Your task to perform on an android device: See recent photos Image 0: 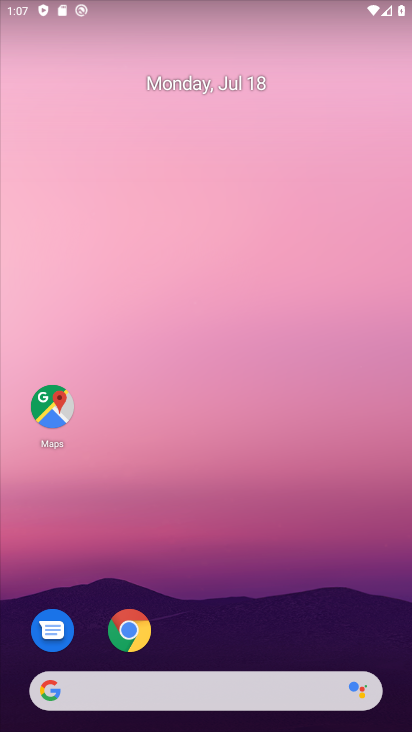
Step 0: drag from (233, 648) to (307, 109)
Your task to perform on an android device: See recent photos Image 1: 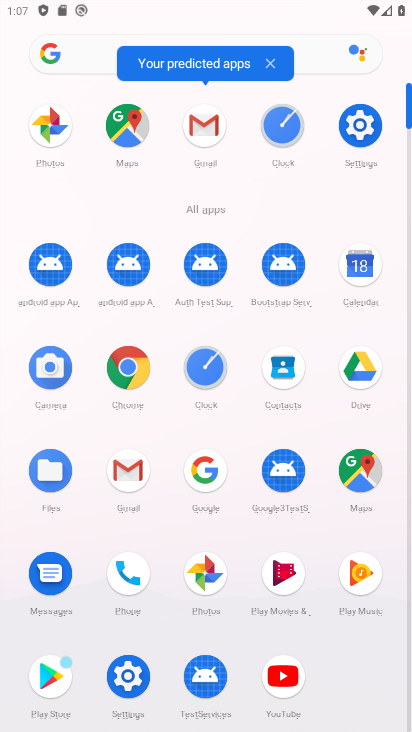
Step 1: click (201, 587)
Your task to perform on an android device: See recent photos Image 2: 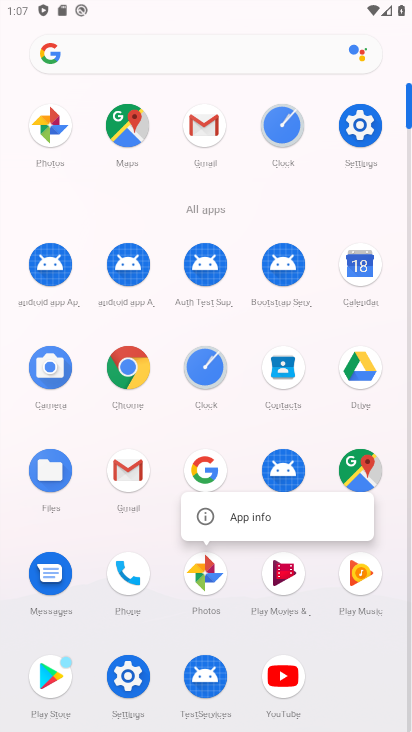
Step 2: click (202, 572)
Your task to perform on an android device: See recent photos Image 3: 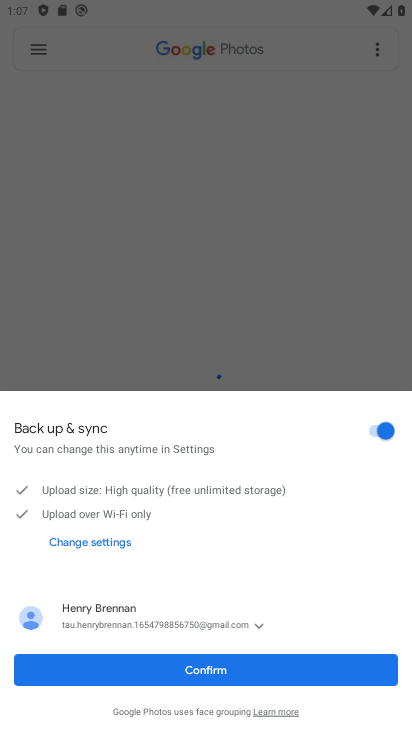
Step 3: click (222, 669)
Your task to perform on an android device: See recent photos Image 4: 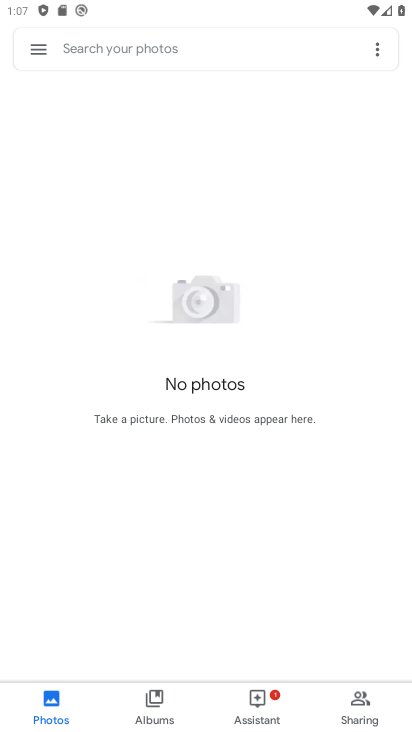
Step 4: task complete